Your task to perform on an android device: Show the shopping cart on amazon.com. Search for "logitech g903" on amazon.com, select the first entry, add it to the cart, then select checkout. Image 0: 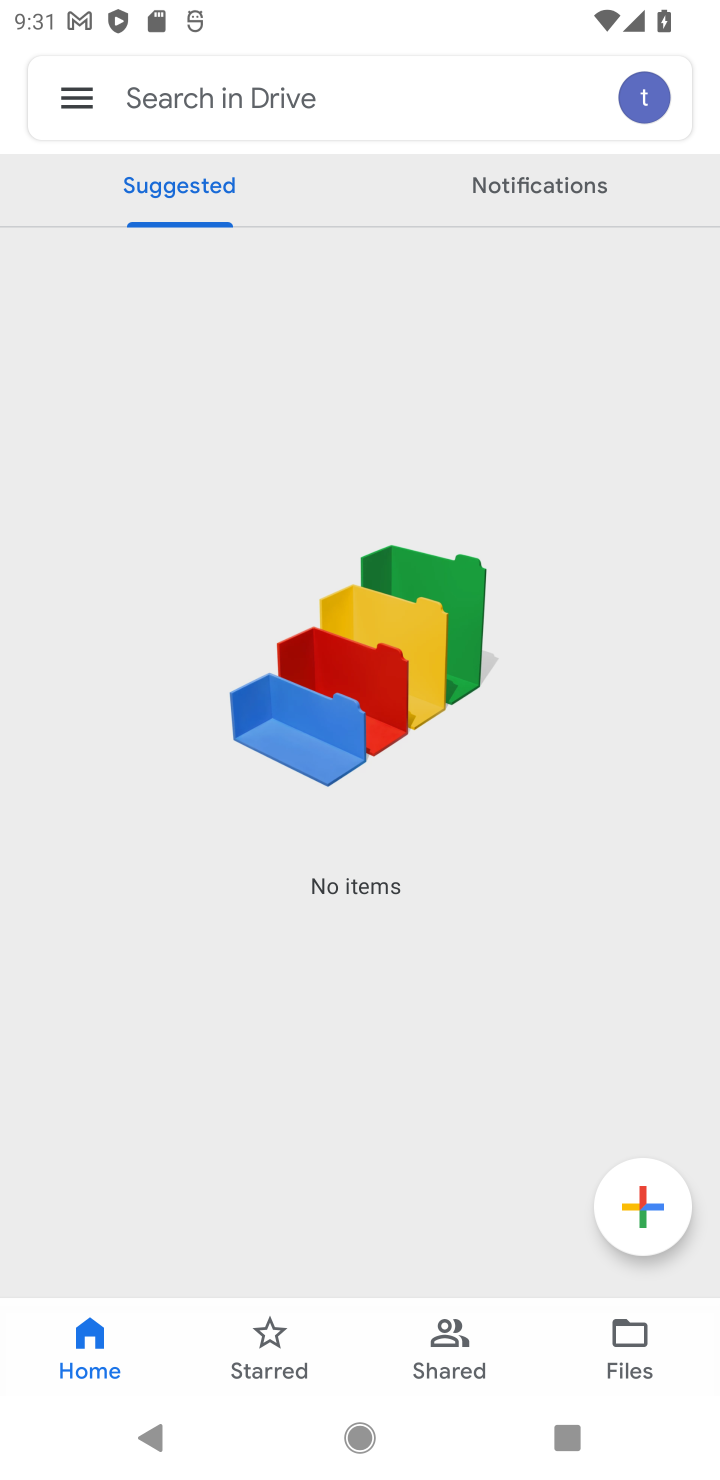
Step 0: press home button
Your task to perform on an android device: Show the shopping cart on amazon.com. Search for "logitech g903" on amazon.com, select the first entry, add it to the cart, then select checkout. Image 1: 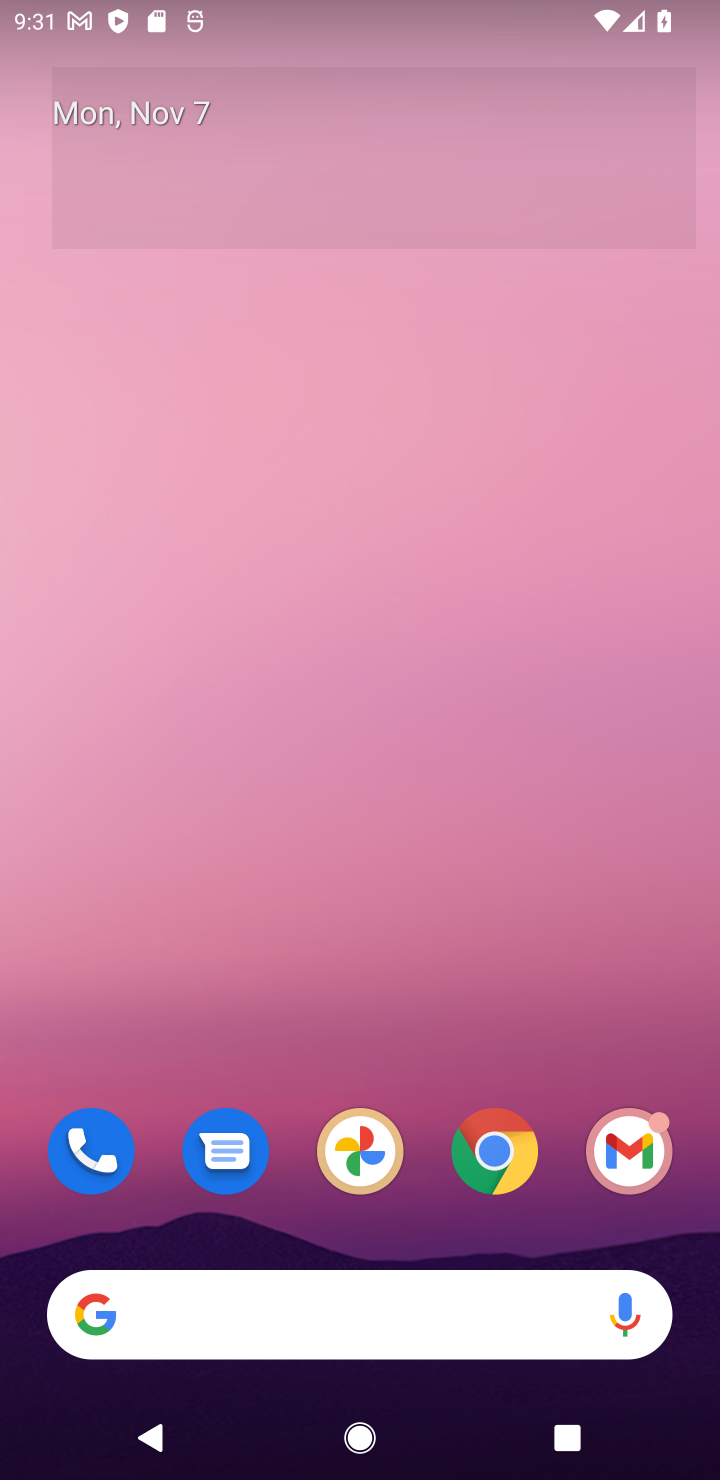
Step 1: click (507, 1145)
Your task to perform on an android device: Show the shopping cart on amazon.com. Search for "logitech g903" on amazon.com, select the first entry, add it to the cart, then select checkout. Image 2: 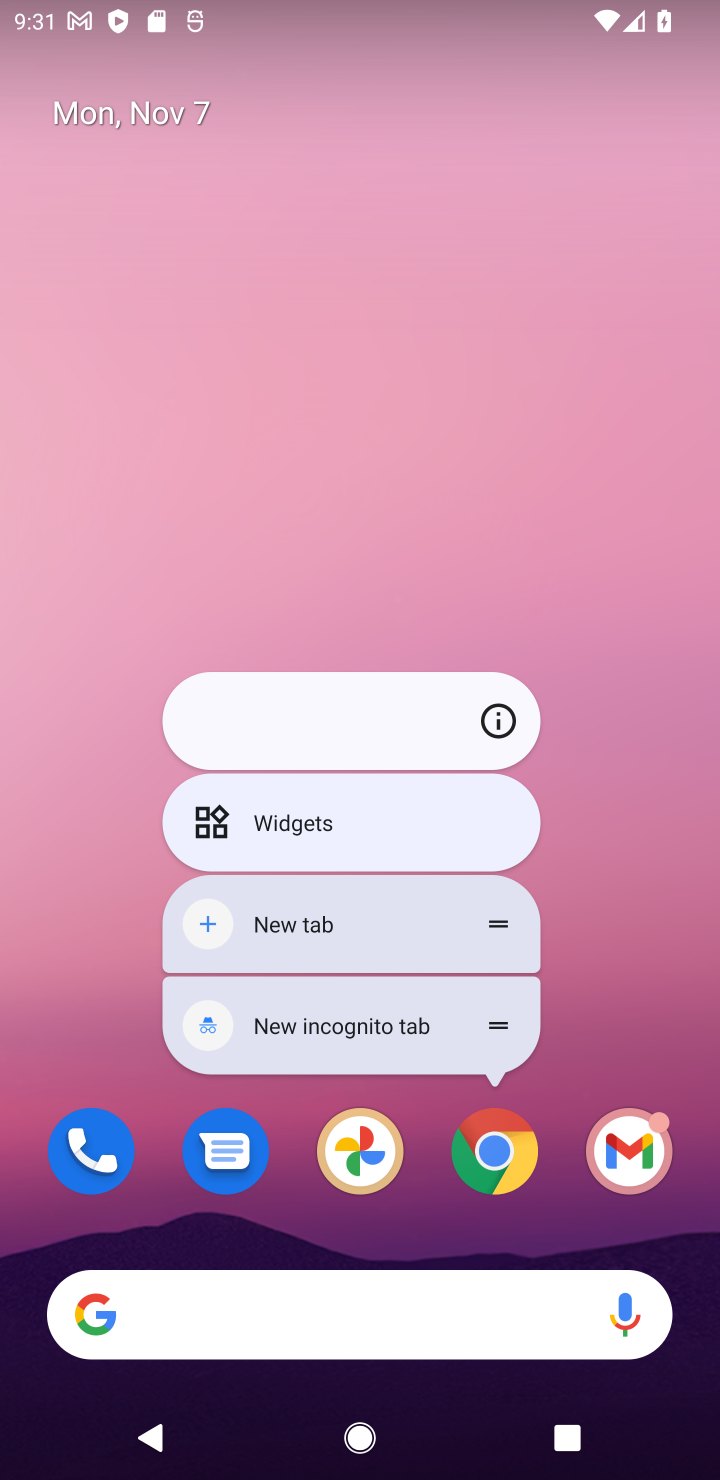
Step 2: click (500, 1152)
Your task to perform on an android device: Show the shopping cart on amazon.com. Search for "logitech g903" on amazon.com, select the first entry, add it to the cart, then select checkout. Image 3: 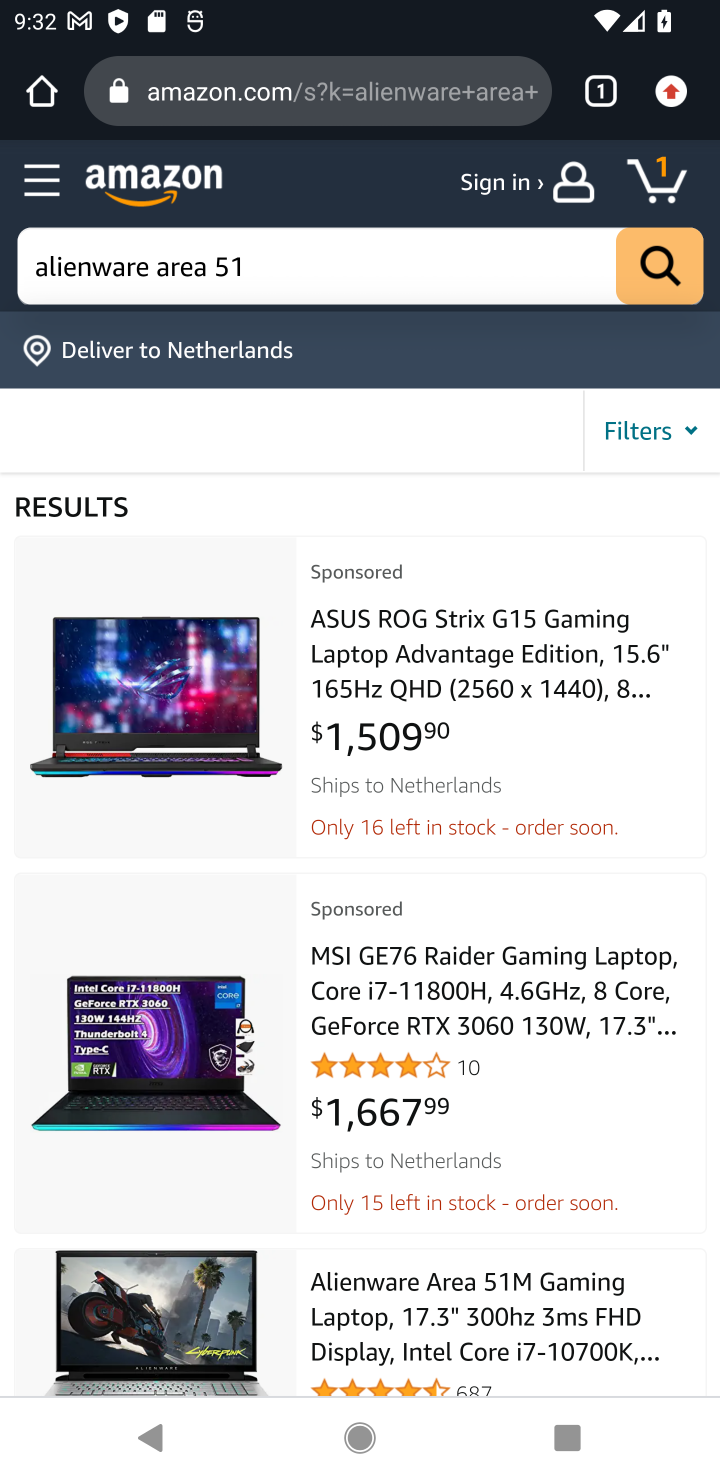
Step 3: click (410, 83)
Your task to perform on an android device: Show the shopping cart on amazon.com. Search for "logitech g903" on amazon.com, select the first entry, add it to the cart, then select checkout. Image 4: 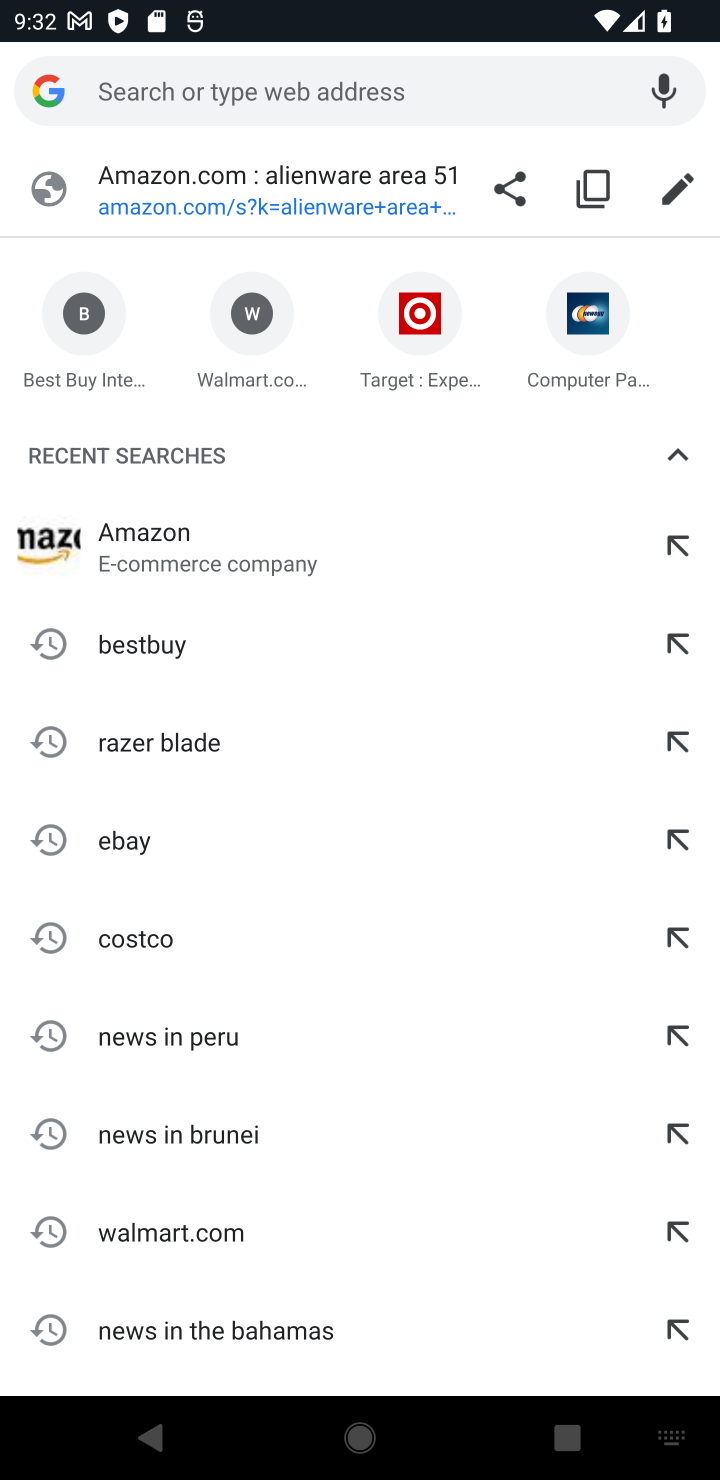
Step 4: click (128, 542)
Your task to perform on an android device: Show the shopping cart on amazon.com. Search for "logitech g903" on amazon.com, select the first entry, add it to the cart, then select checkout. Image 5: 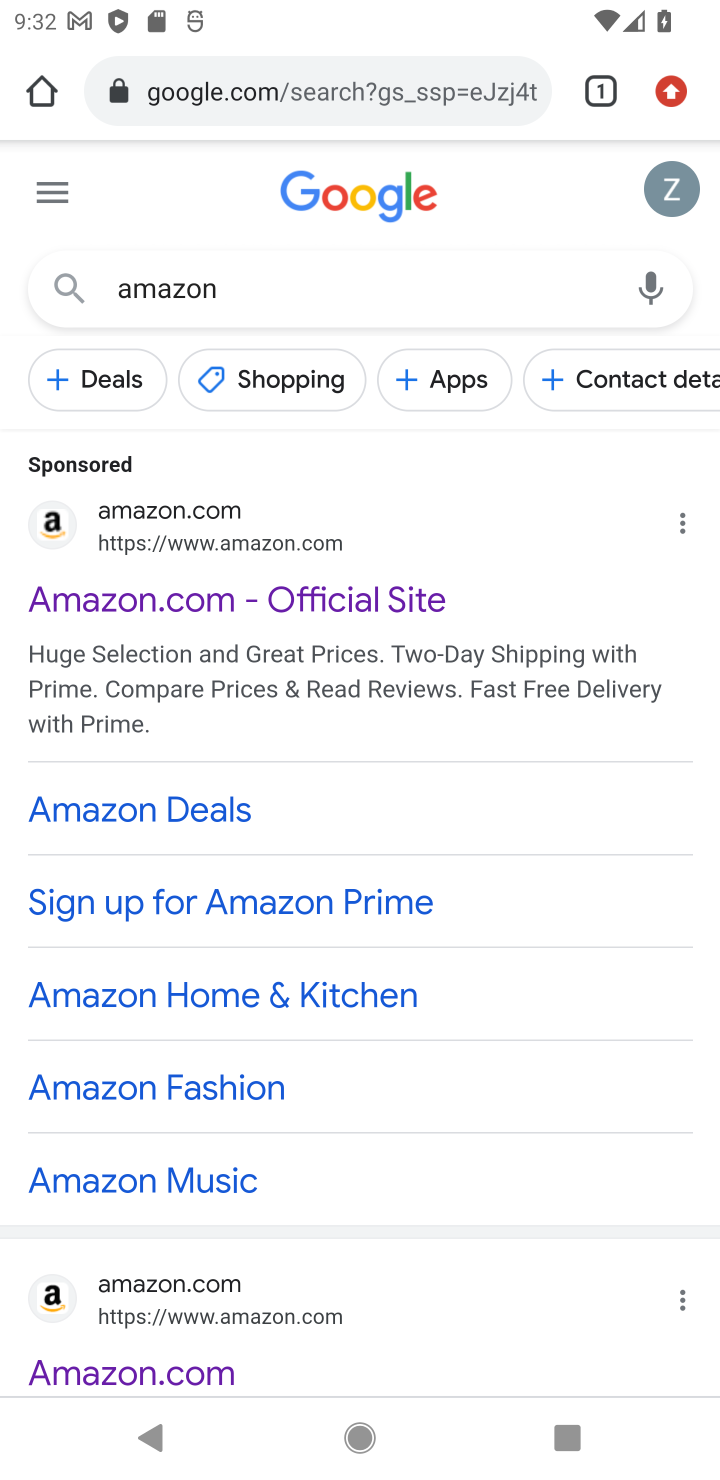
Step 5: click (158, 600)
Your task to perform on an android device: Show the shopping cart on amazon.com. Search for "logitech g903" on amazon.com, select the first entry, add it to the cart, then select checkout. Image 6: 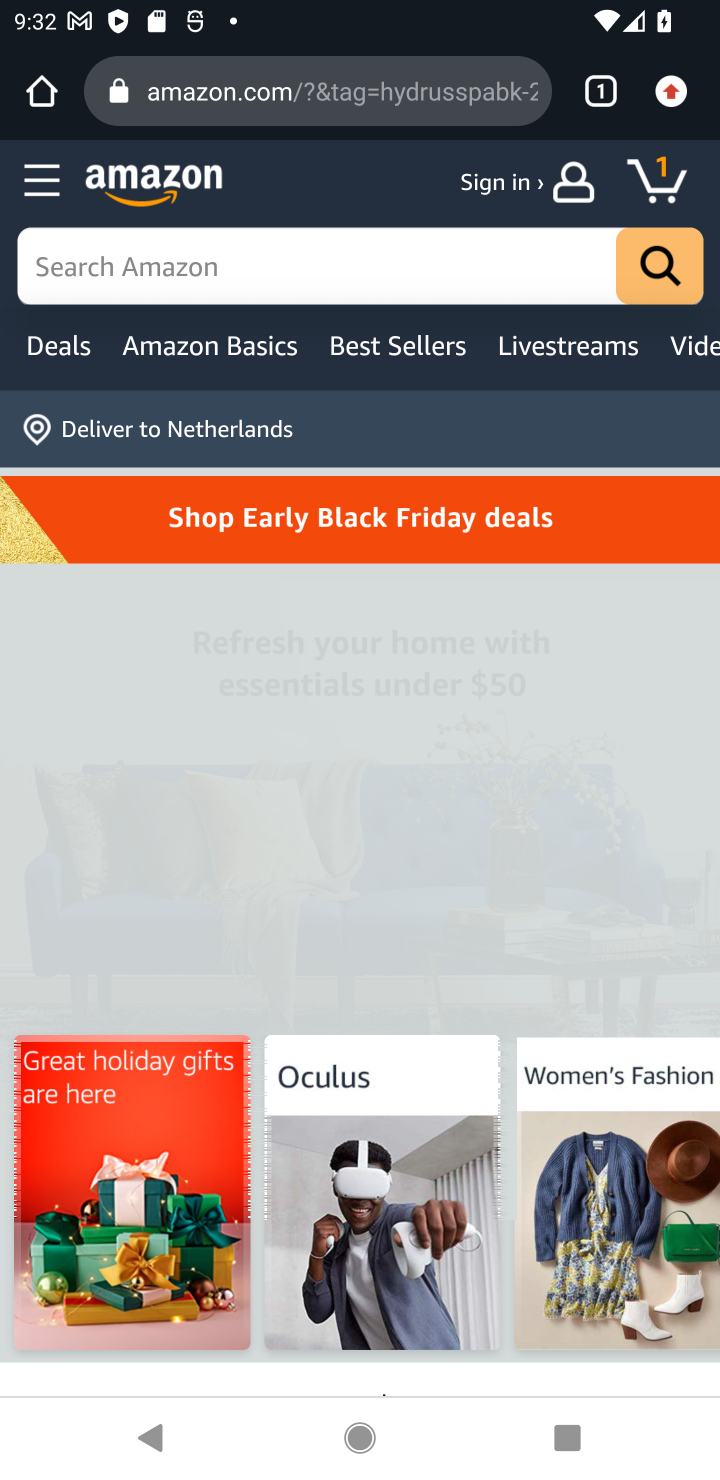
Step 6: click (105, 261)
Your task to perform on an android device: Show the shopping cart on amazon.com. Search for "logitech g903" on amazon.com, select the first entry, add it to the cart, then select checkout. Image 7: 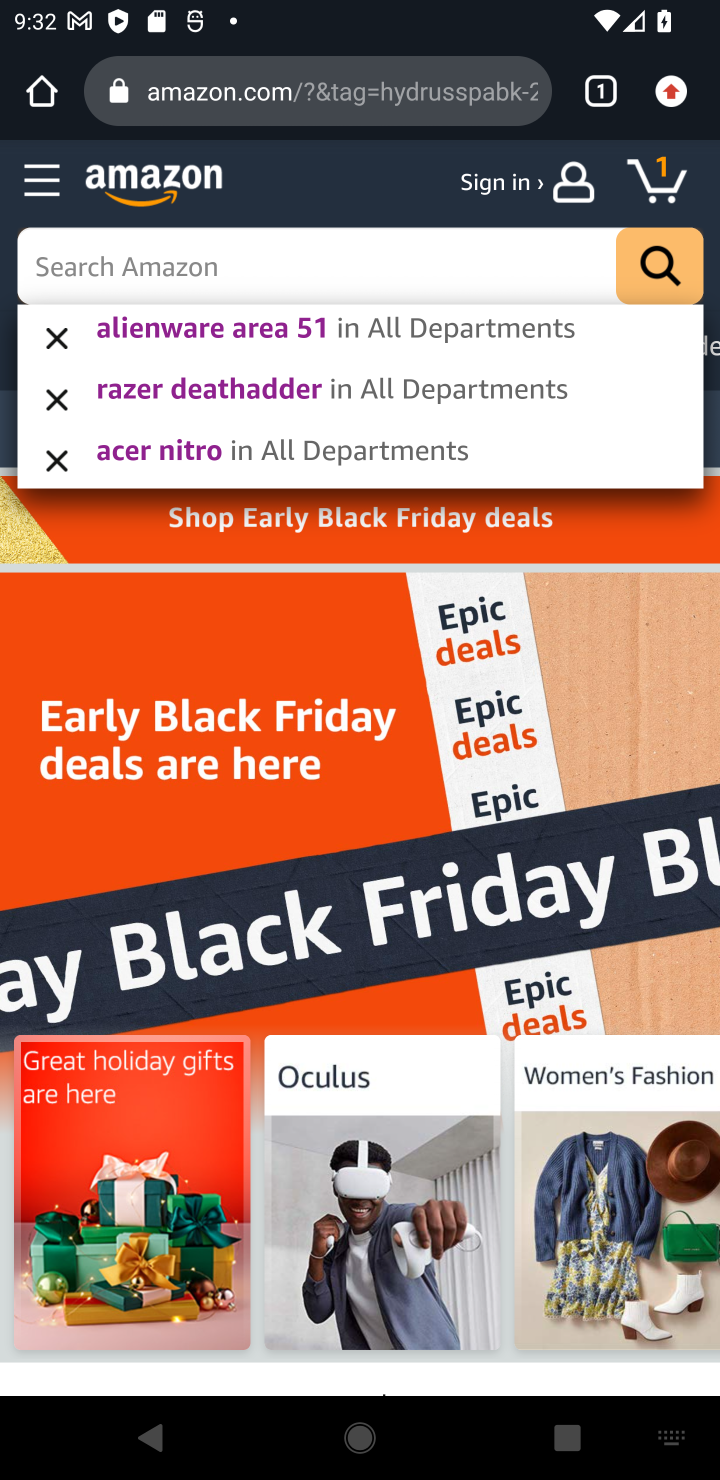
Step 7: press enter
Your task to perform on an android device: Show the shopping cart on amazon.com. Search for "logitech g903" on amazon.com, select the first entry, add it to the cart, then select checkout. Image 8: 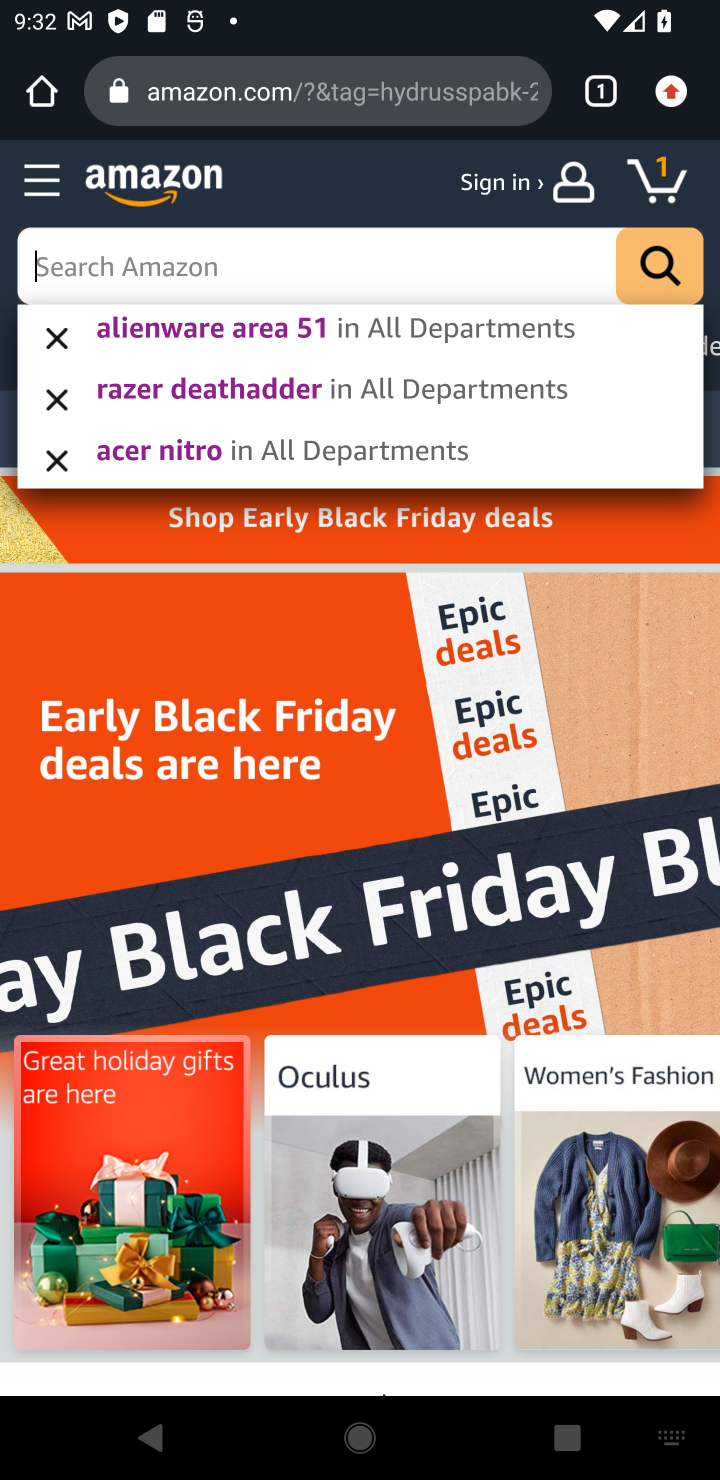
Step 8: type "logitech g903"
Your task to perform on an android device: Show the shopping cart on amazon.com. Search for "logitech g903" on amazon.com, select the first entry, add it to the cart, then select checkout. Image 9: 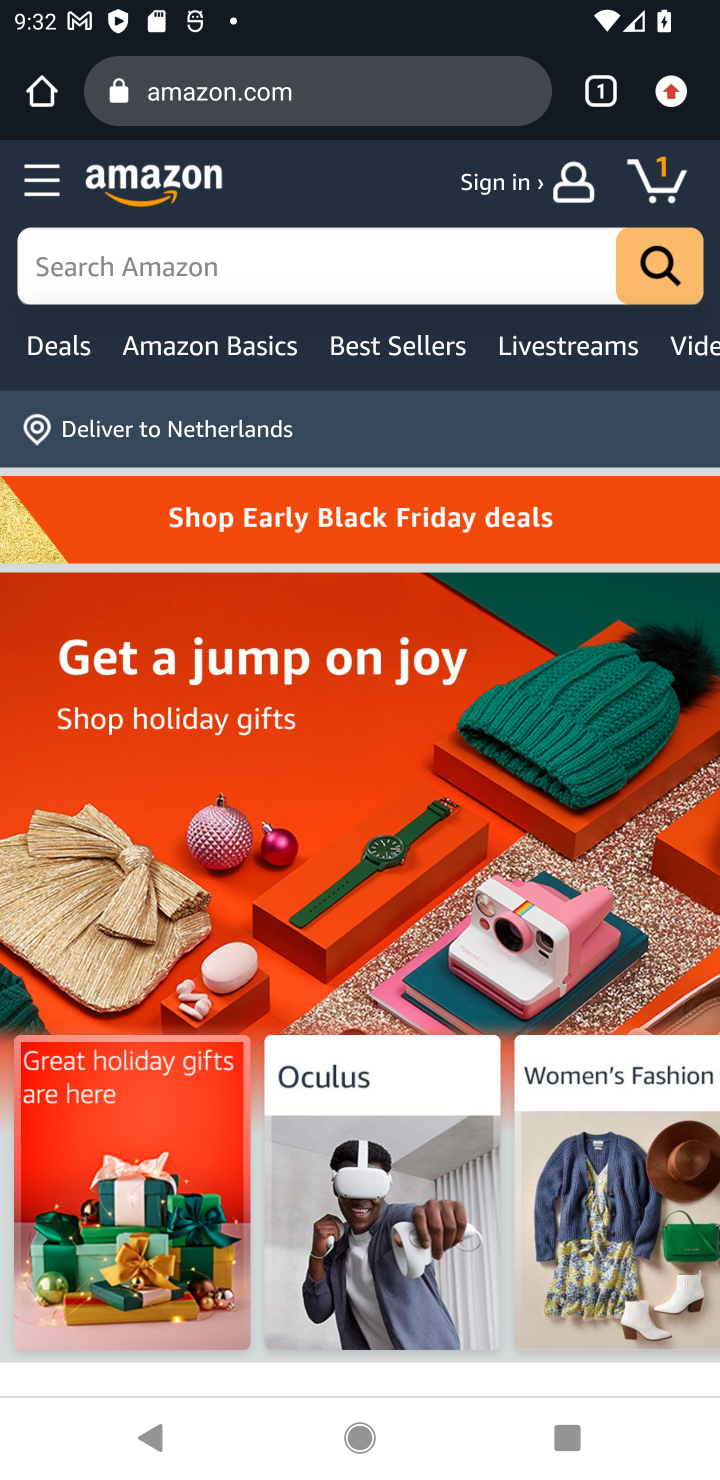
Step 9: click (178, 271)
Your task to perform on an android device: Show the shopping cart on amazon.com. Search for "logitech g903" on amazon.com, select the first entry, add it to the cart, then select checkout. Image 10: 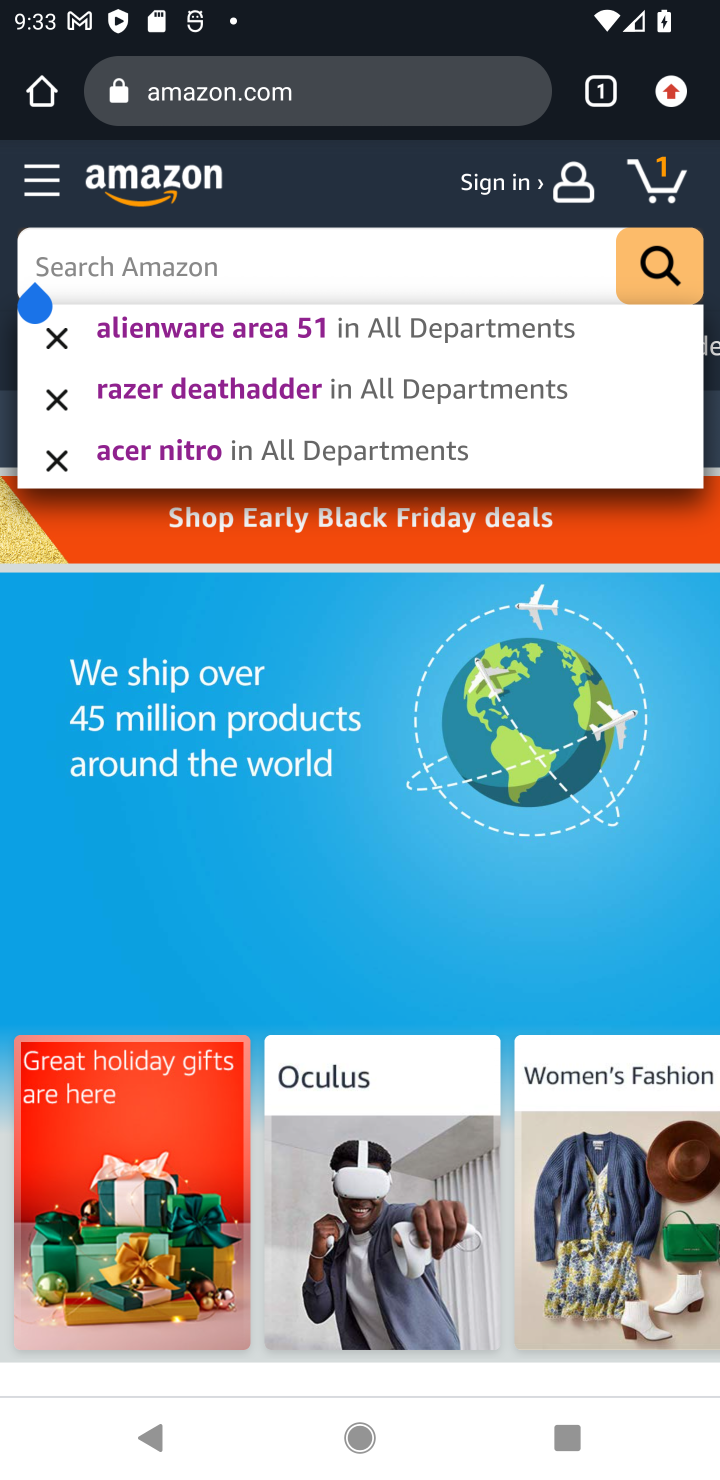
Step 10: type "logitech g903"
Your task to perform on an android device: Show the shopping cart on amazon.com. Search for "logitech g903" on amazon.com, select the first entry, add it to the cart, then select checkout. Image 11: 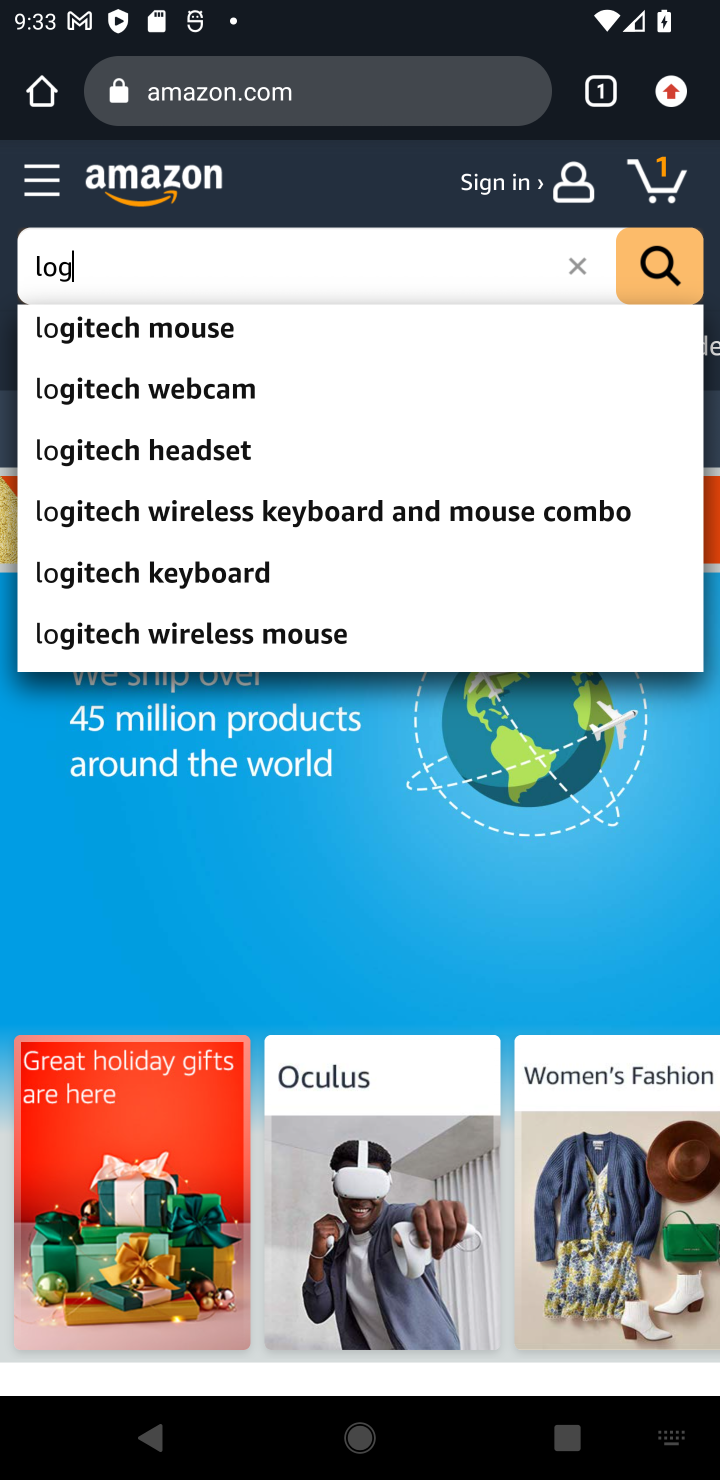
Step 11: press enter
Your task to perform on an android device: Show the shopping cart on amazon.com. Search for "logitech g903" on amazon.com, select the first entry, add it to the cart, then select checkout. Image 12: 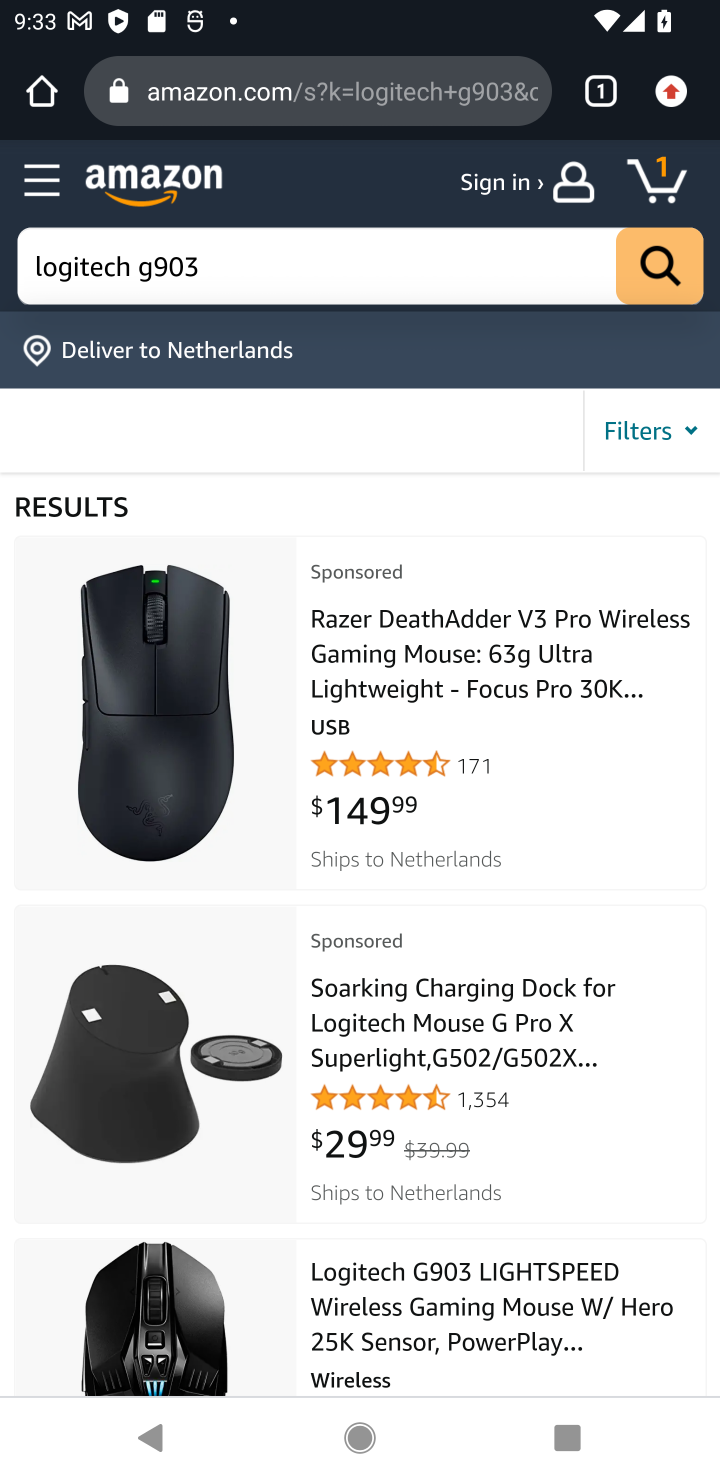
Step 12: task complete